Your task to perform on an android device: Go to Google Image 0: 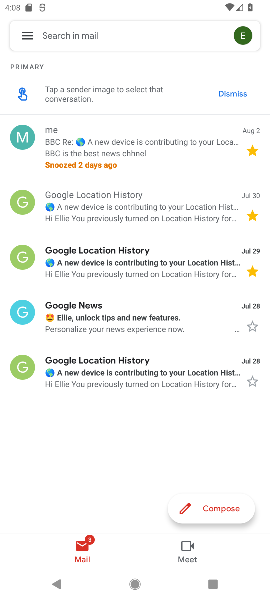
Step 0: press home button
Your task to perform on an android device: Go to Google Image 1: 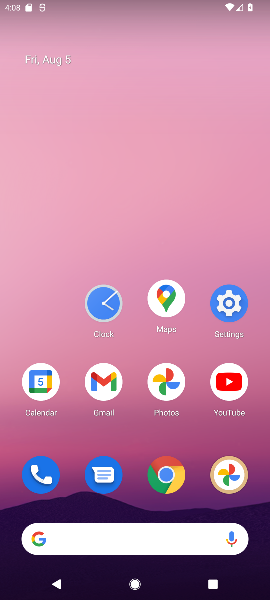
Step 1: drag from (258, 544) to (157, 173)
Your task to perform on an android device: Go to Google Image 2: 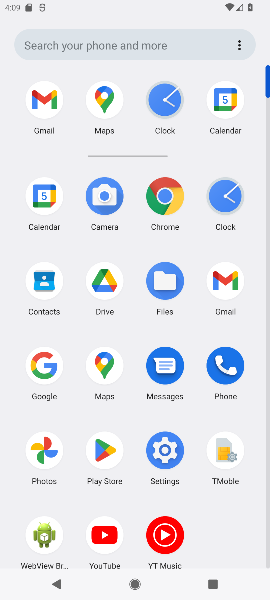
Step 2: click (42, 371)
Your task to perform on an android device: Go to Google Image 3: 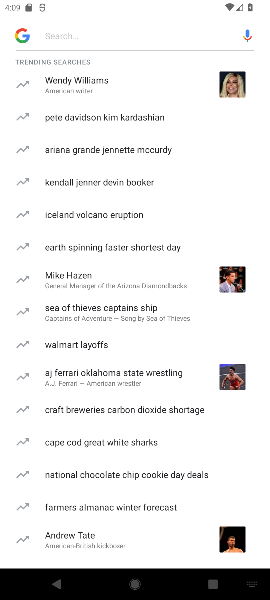
Step 3: task complete